Your task to perform on an android device: Open CNN.com Image 0: 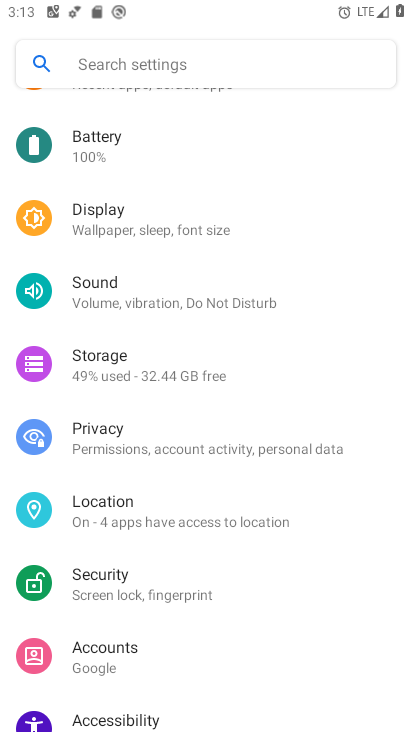
Step 0: press home button
Your task to perform on an android device: Open CNN.com Image 1: 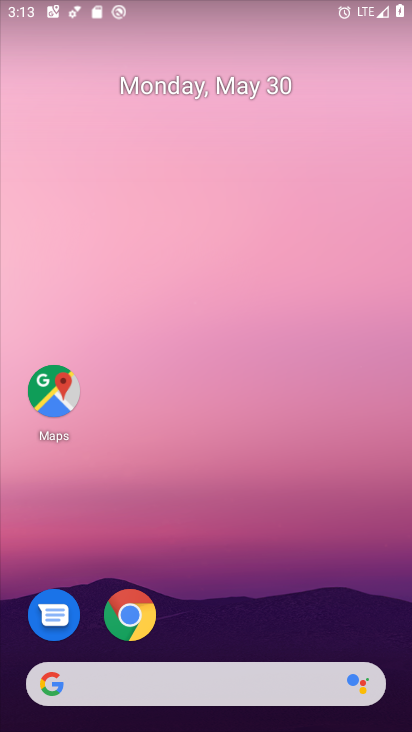
Step 1: click (236, 684)
Your task to perform on an android device: Open CNN.com Image 2: 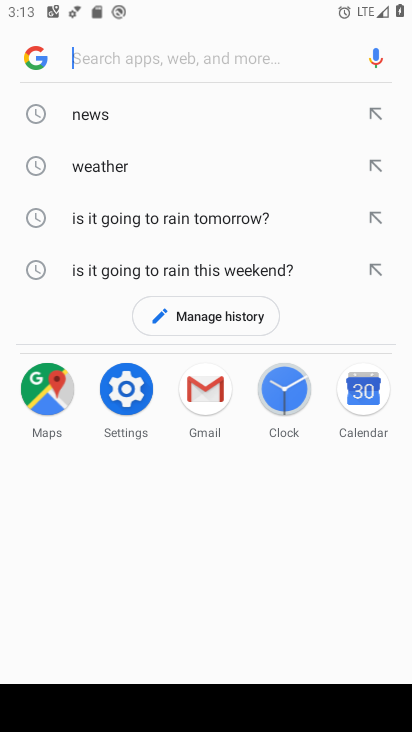
Step 2: type "cnn.com"
Your task to perform on an android device: Open CNN.com Image 3: 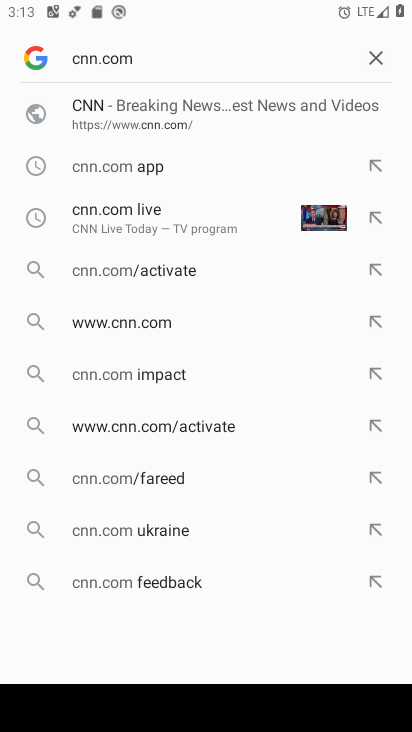
Step 3: click (131, 112)
Your task to perform on an android device: Open CNN.com Image 4: 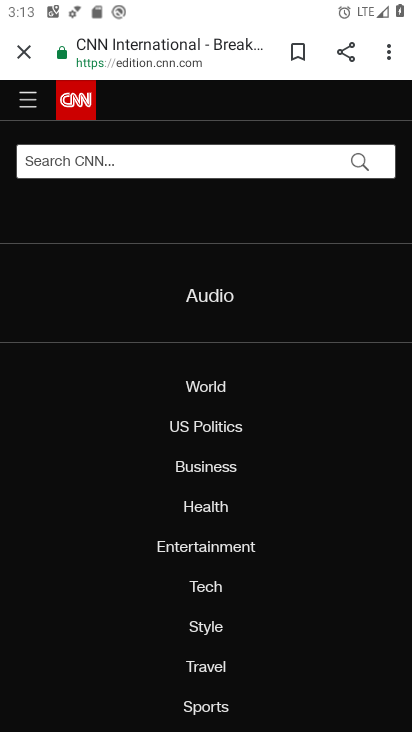
Step 4: task complete